Your task to perform on an android device: open a new tab in the chrome app Image 0: 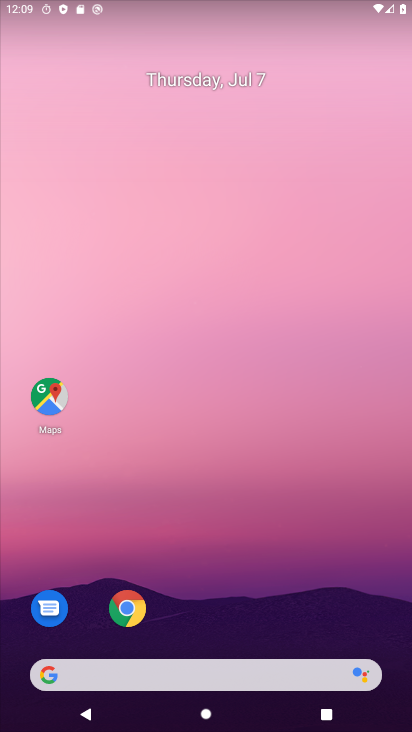
Step 0: drag from (289, 610) to (323, 184)
Your task to perform on an android device: open a new tab in the chrome app Image 1: 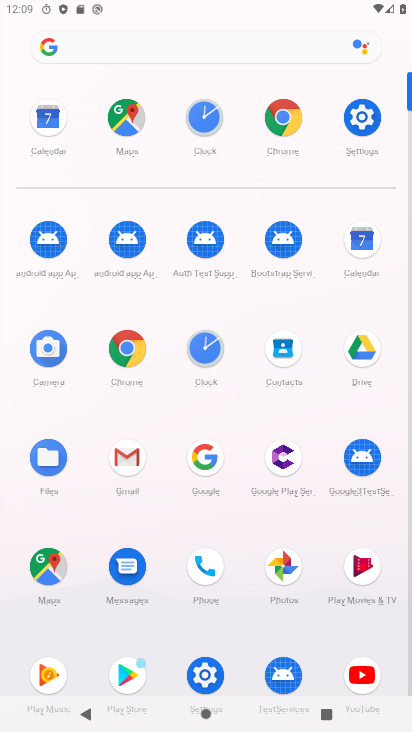
Step 1: click (126, 342)
Your task to perform on an android device: open a new tab in the chrome app Image 2: 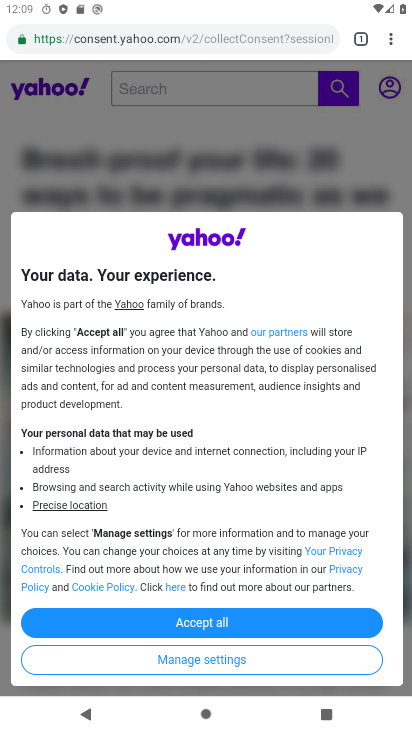
Step 2: task complete